Your task to perform on an android device: Show me popular videos on Youtube Image 0: 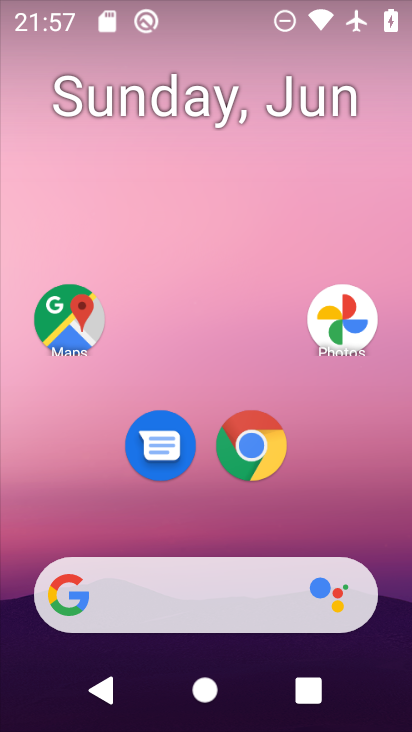
Step 0: press home button
Your task to perform on an android device: Show me popular videos on Youtube Image 1: 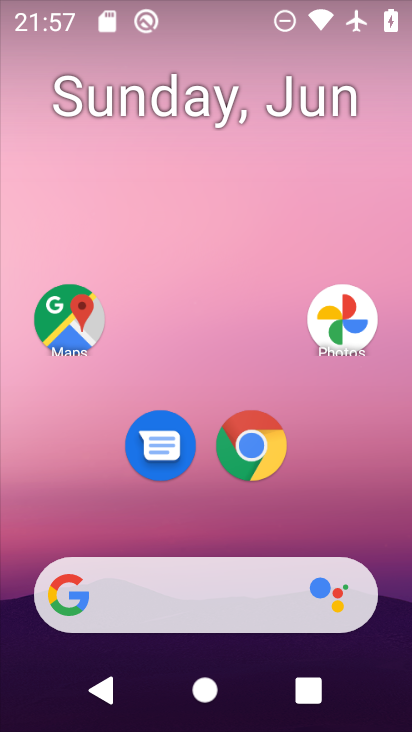
Step 1: drag from (336, 528) to (291, 243)
Your task to perform on an android device: Show me popular videos on Youtube Image 2: 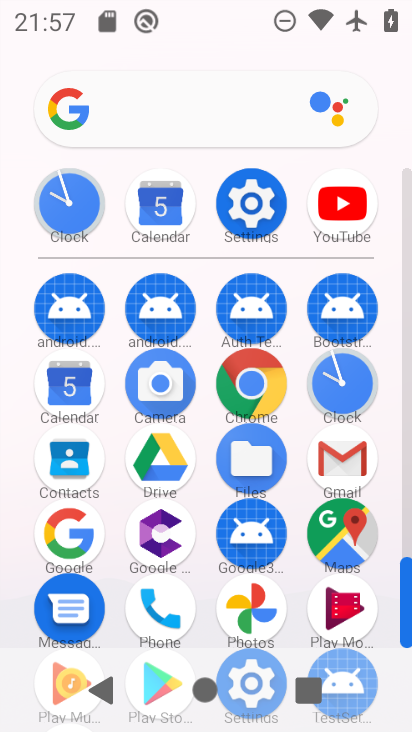
Step 2: click (339, 214)
Your task to perform on an android device: Show me popular videos on Youtube Image 3: 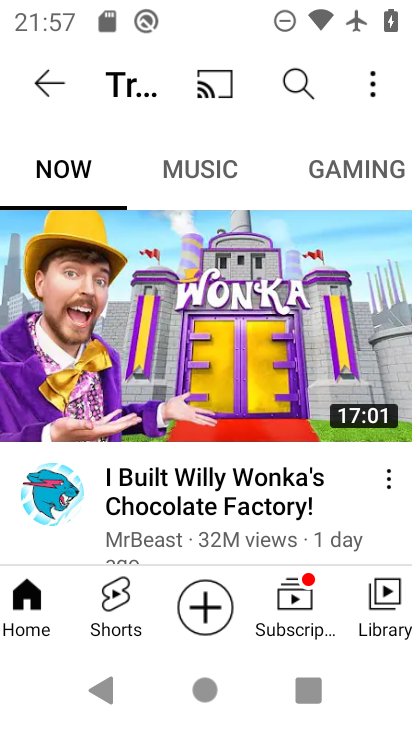
Step 3: click (382, 599)
Your task to perform on an android device: Show me popular videos on Youtube Image 4: 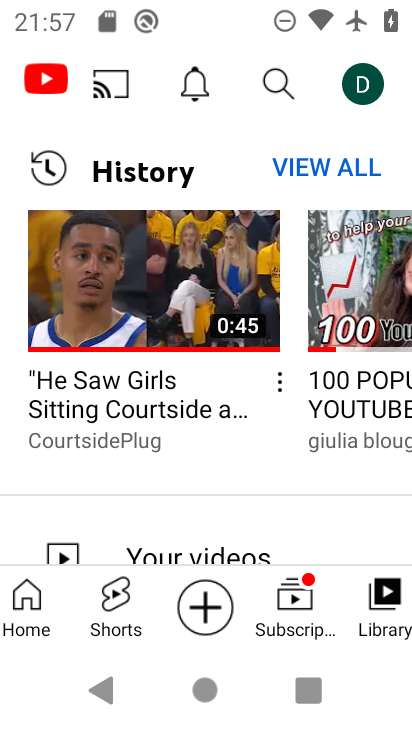
Step 4: click (16, 591)
Your task to perform on an android device: Show me popular videos on Youtube Image 5: 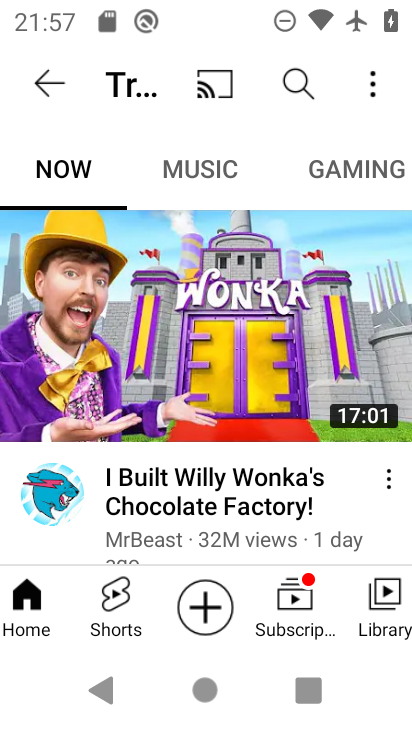
Step 5: drag from (158, 299) to (164, 686)
Your task to perform on an android device: Show me popular videos on Youtube Image 6: 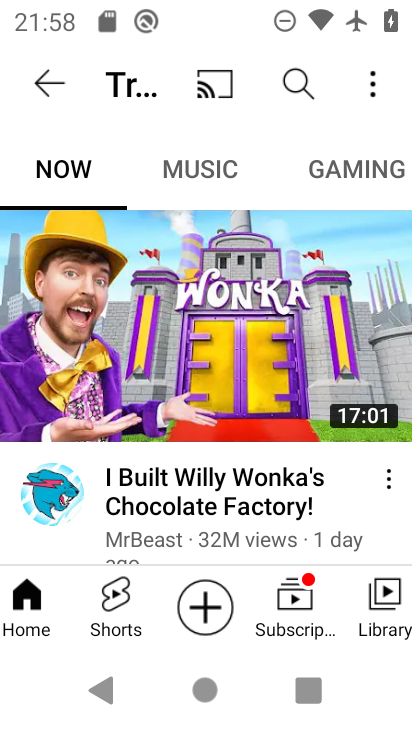
Step 6: drag from (54, 543) to (69, 634)
Your task to perform on an android device: Show me popular videos on Youtube Image 7: 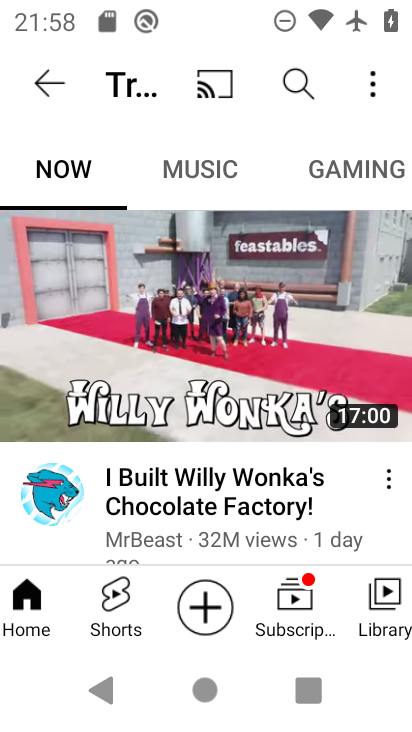
Step 7: drag from (163, 204) to (129, 474)
Your task to perform on an android device: Show me popular videos on Youtube Image 8: 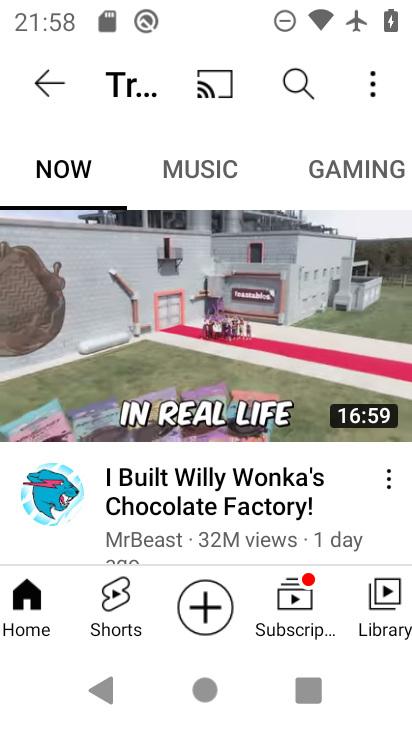
Step 8: click (48, 83)
Your task to perform on an android device: Show me popular videos on Youtube Image 9: 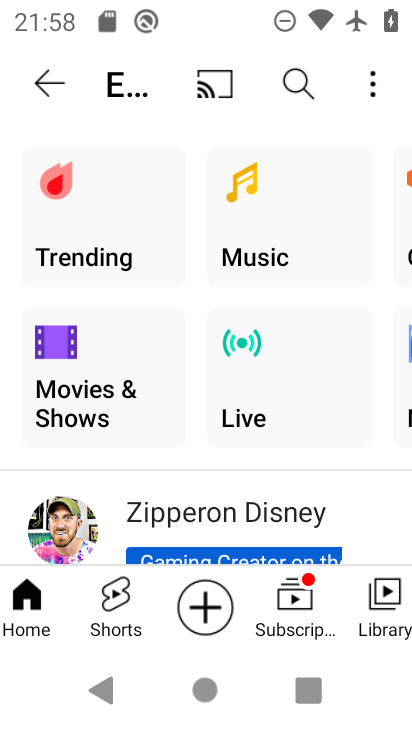
Step 9: click (121, 204)
Your task to perform on an android device: Show me popular videos on Youtube Image 10: 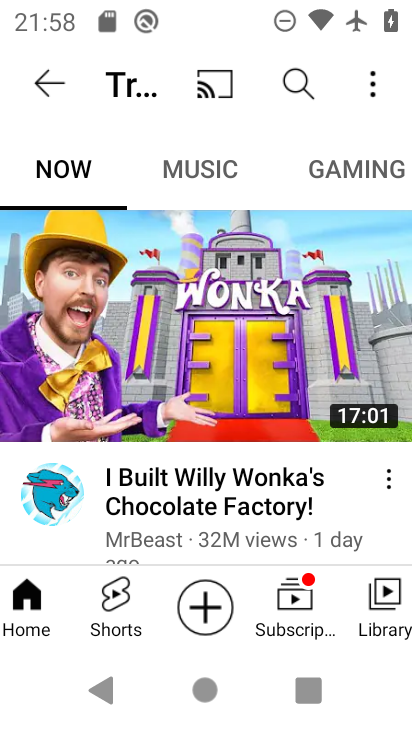
Step 10: press home button
Your task to perform on an android device: Show me popular videos on Youtube Image 11: 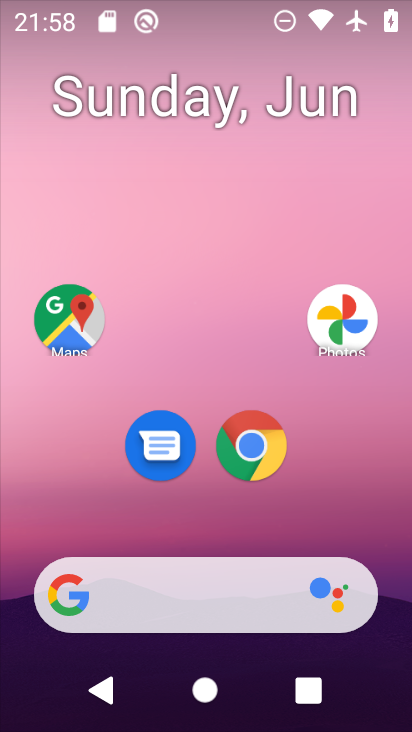
Step 11: press home button
Your task to perform on an android device: Show me popular videos on Youtube Image 12: 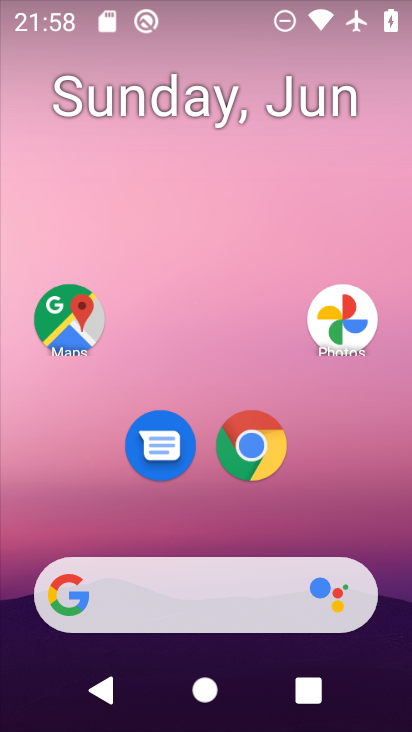
Step 12: drag from (340, 524) to (336, 165)
Your task to perform on an android device: Show me popular videos on Youtube Image 13: 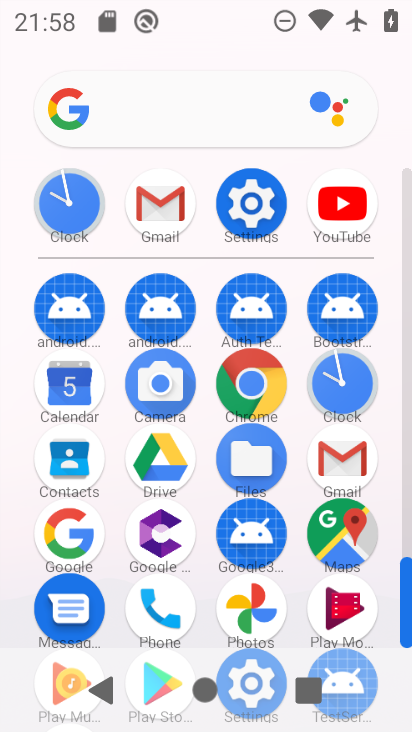
Step 13: click (371, 208)
Your task to perform on an android device: Show me popular videos on Youtube Image 14: 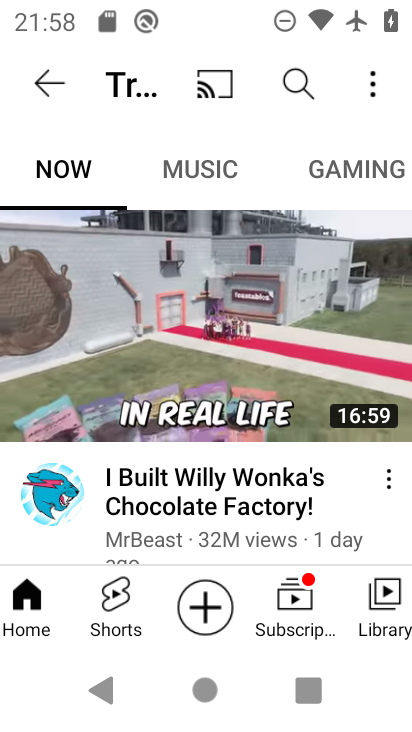
Step 14: task complete